Your task to perform on an android device: Open internet settings Image 0: 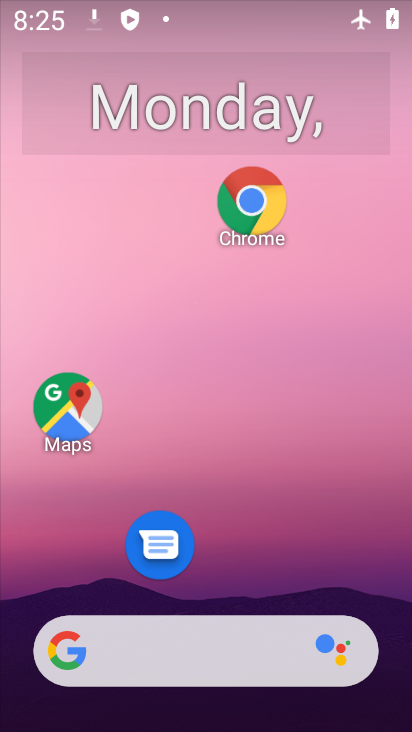
Step 0: drag from (266, 590) to (268, 68)
Your task to perform on an android device: Open internet settings Image 1: 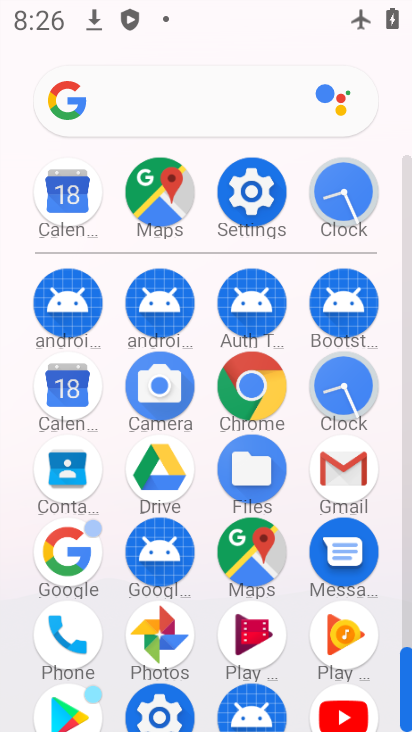
Step 1: click (253, 176)
Your task to perform on an android device: Open internet settings Image 2: 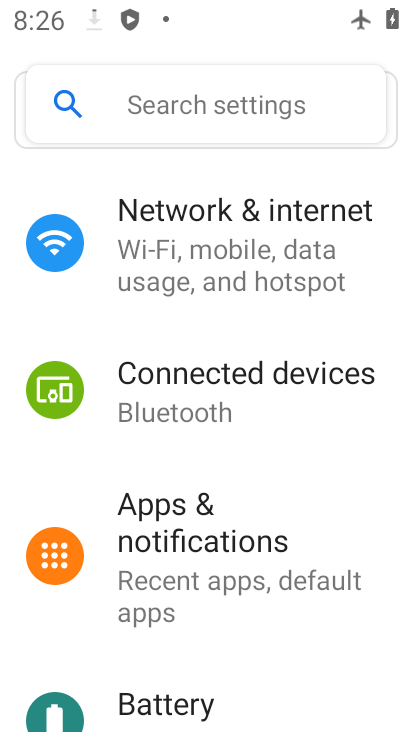
Step 2: click (221, 241)
Your task to perform on an android device: Open internet settings Image 3: 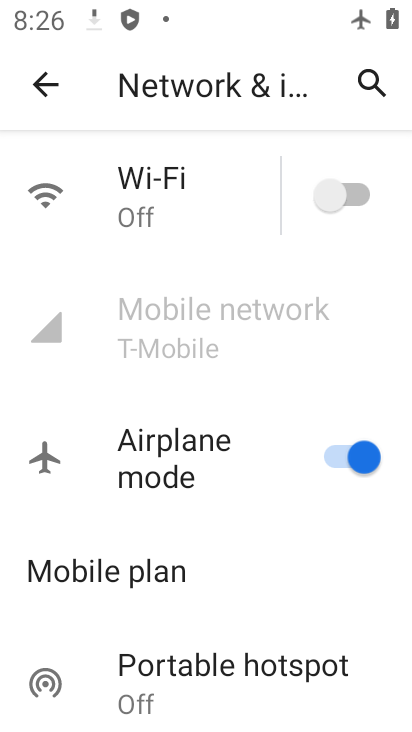
Step 3: task complete